Your task to perform on an android device: remove spam from my inbox in the gmail app Image 0: 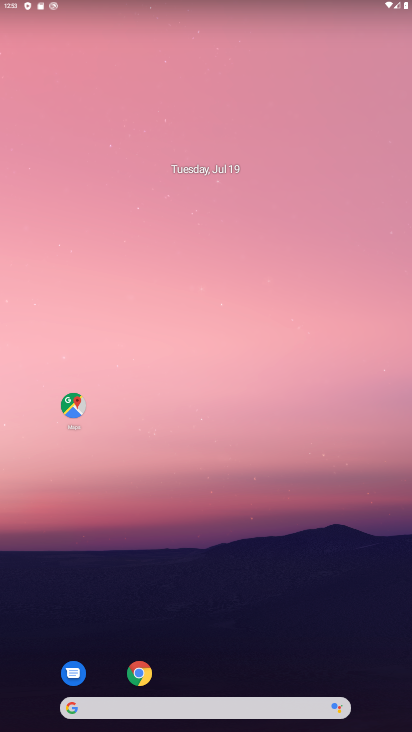
Step 0: drag from (209, 681) to (339, 2)
Your task to perform on an android device: remove spam from my inbox in the gmail app Image 1: 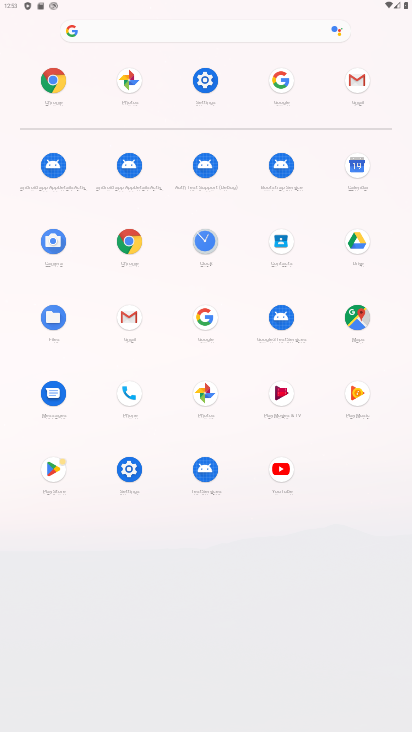
Step 1: click (127, 323)
Your task to perform on an android device: remove spam from my inbox in the gmail app Image 2: 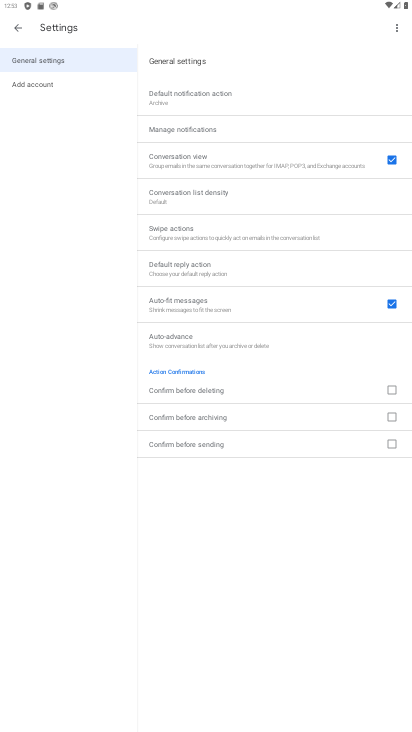
Step 2: task complete